Your task to perform on an android device: see creations saved in the google photos Image 0: 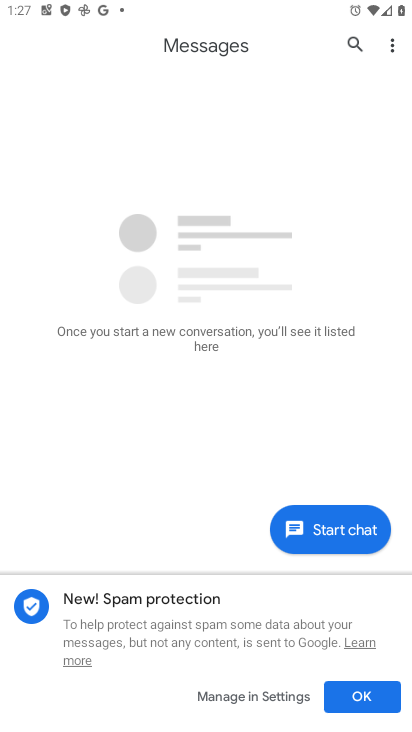
Step 0: press home button
Your task to perform on an android device: see creations saved in the google photos Image 1: 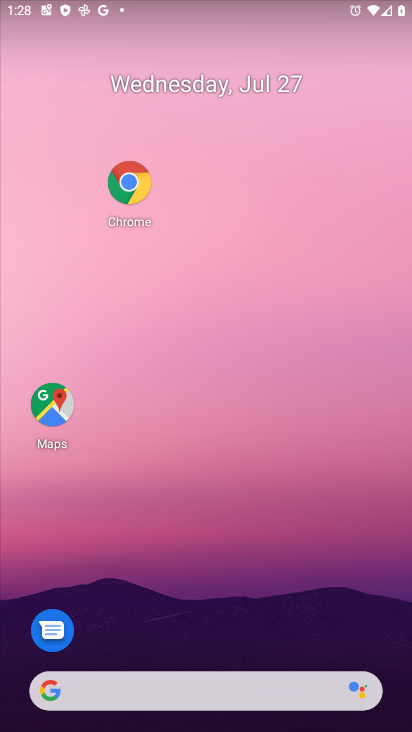
Step 1: drag from (202, 729) to (316, 132)
Your task to perform on an android device: see creations saved in the google photos Image 2: 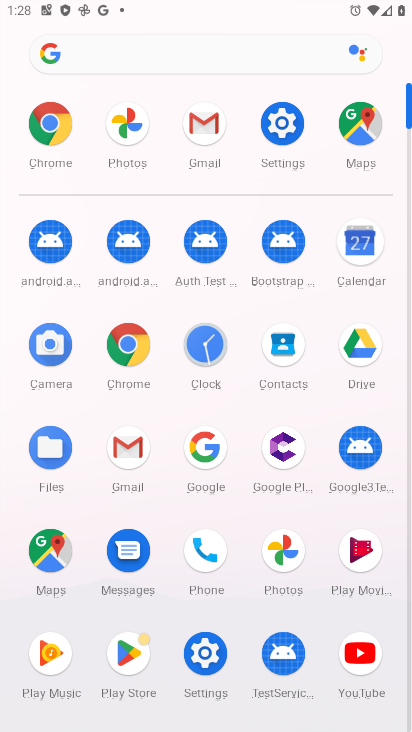
Step 2: click (141, 127)
Your task to perform on an android device: see creations saved in the google photos Image 3: 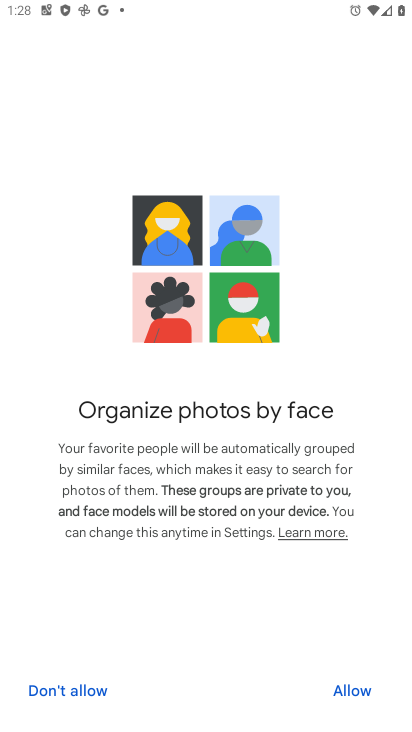
Step 3: click (361, 683)
Your task to perform on an android device: see creations saved in the google photos Image 4: 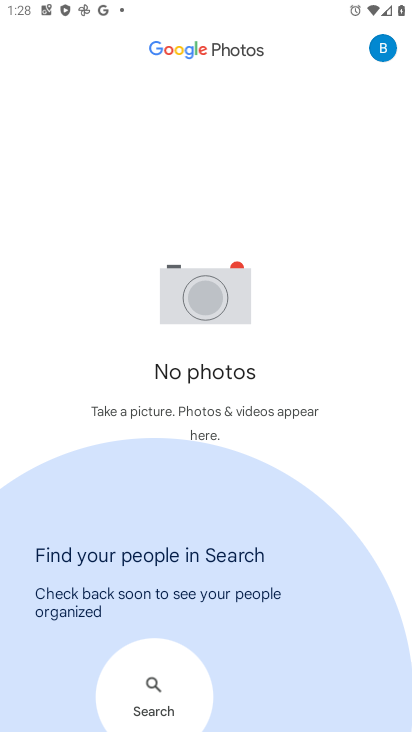
Step 4: click (104, 129)
Your task to perform on an android device: see creations saved in the google photos Image 5: 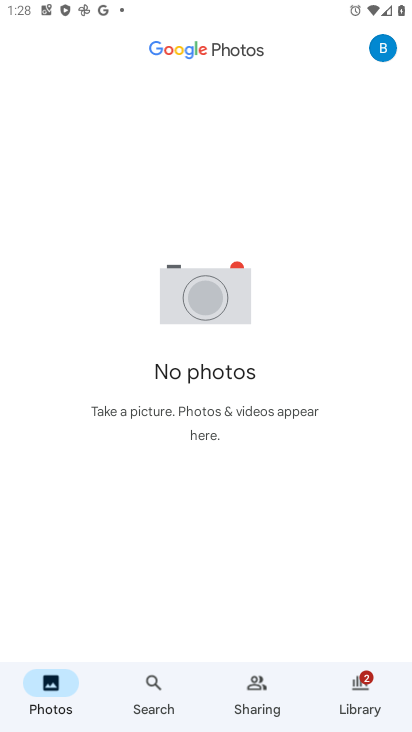
Step 5: click (156, 696)
Your task to perform on an android device: see creations saved in the google photos Image 6: 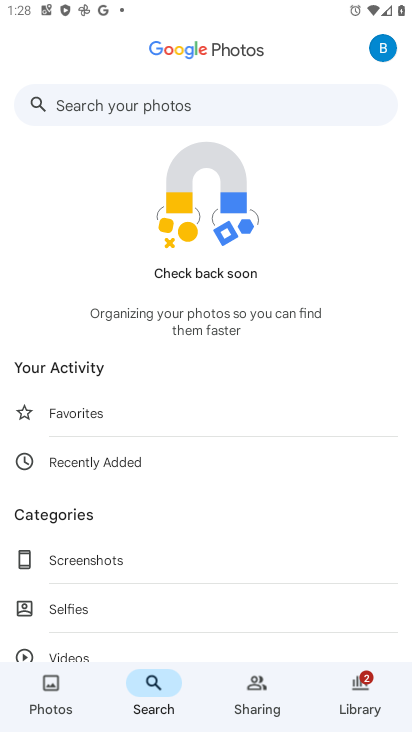
Step 6: drag from (156, 535) to (169, 100)
Your task to perform on an android device: see creations saved in the google photos Image 7: 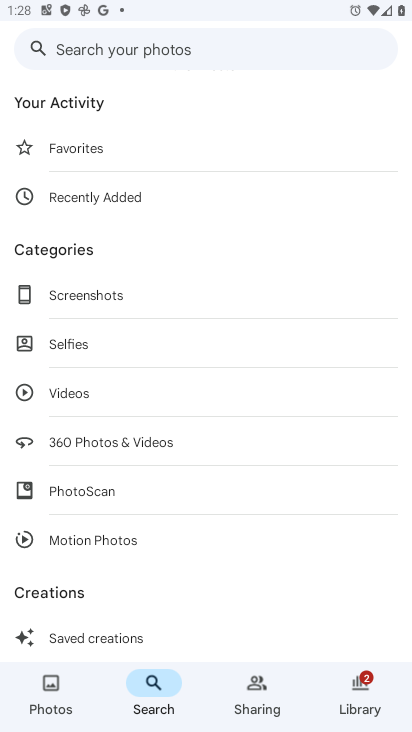
Step 7: click (130, 633)
Your task to perform on an android device: see creations saved in the google photos Image 8: 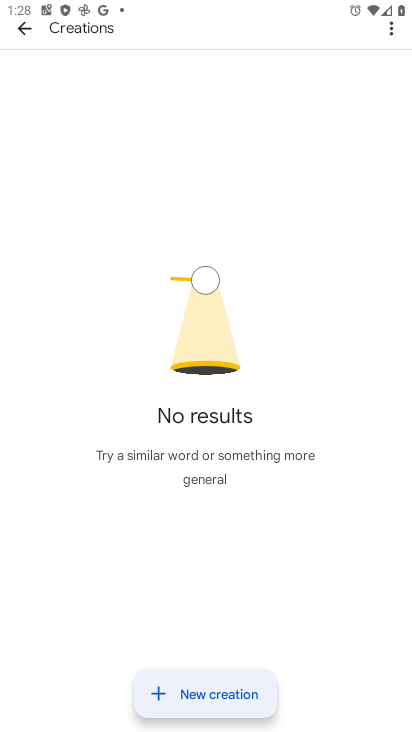
Step 8: task complete